Your task to perform on an android device: delete location history Image 0: 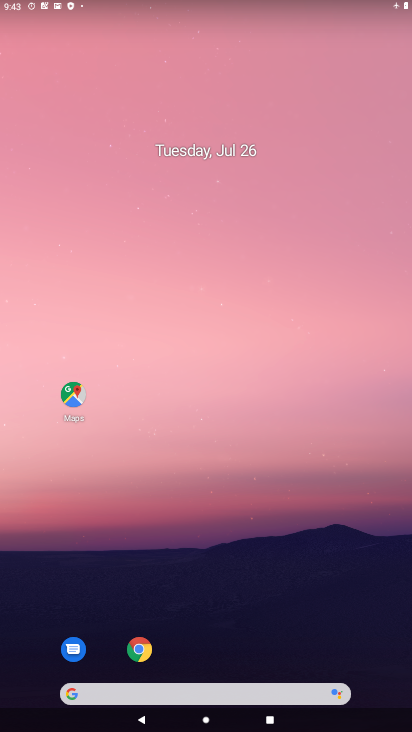
Step 0: drag from (204, 621) to (228, 46)
Your task to perform on an android device: delete location history Image 1: 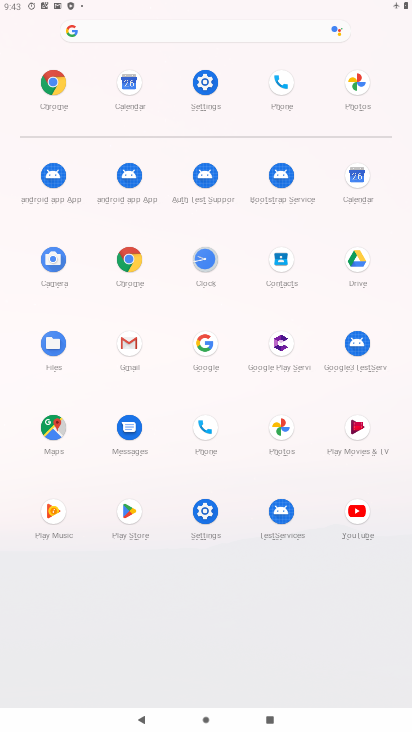
Step 1: click (201, 507)
Your task to perform on an android device: delete location history Image 2: 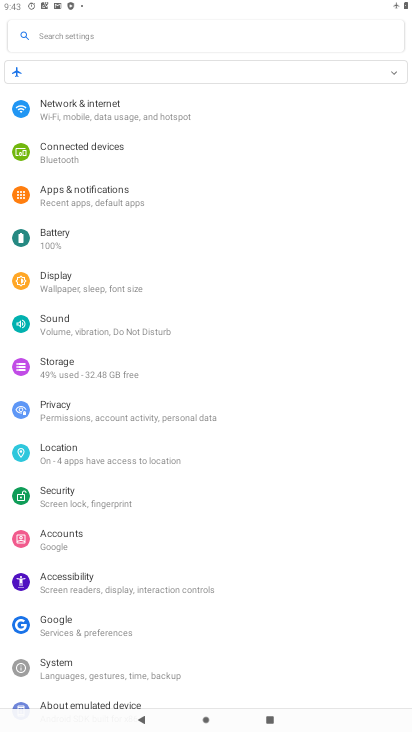
Step 2: click (72, 441)
Your task to perform on an android device: delete location history Image 3: 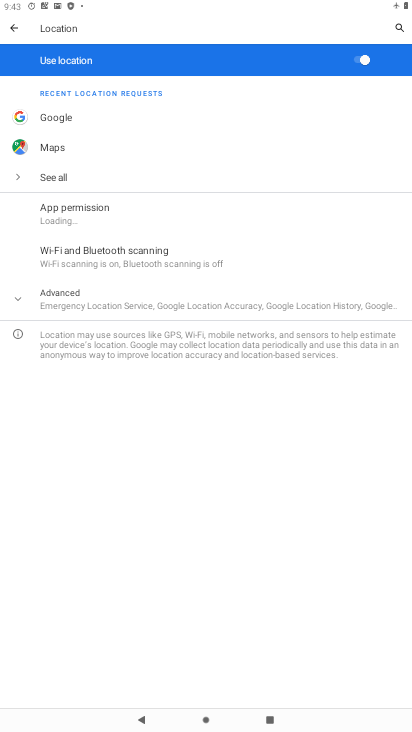
Step 3: click (121, 292)
Your task to perform on an android device: delete location history Image 4: 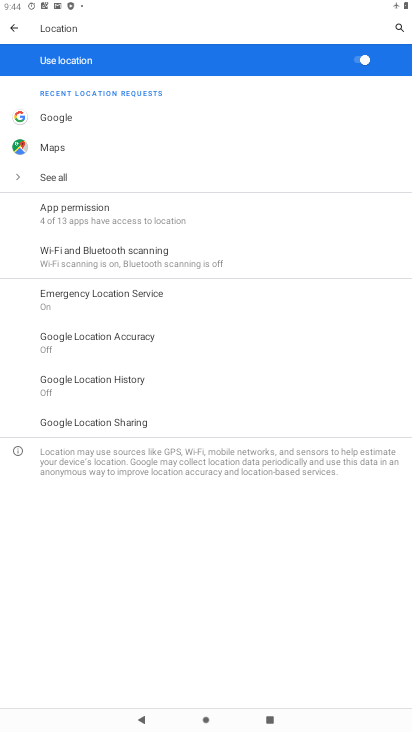
Step 4: click (105, 382)
Your task to perform on an android device: delete location history Image 5: 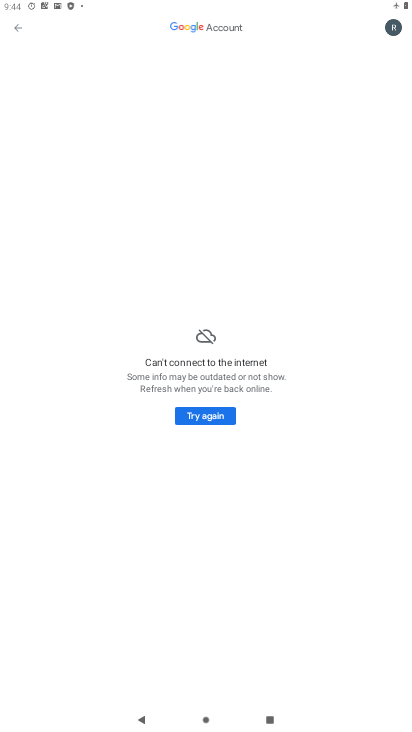
Step 5: drag from (258, 661) to (249, 238)
Your task to perform on an android device: delete location history Image 6: 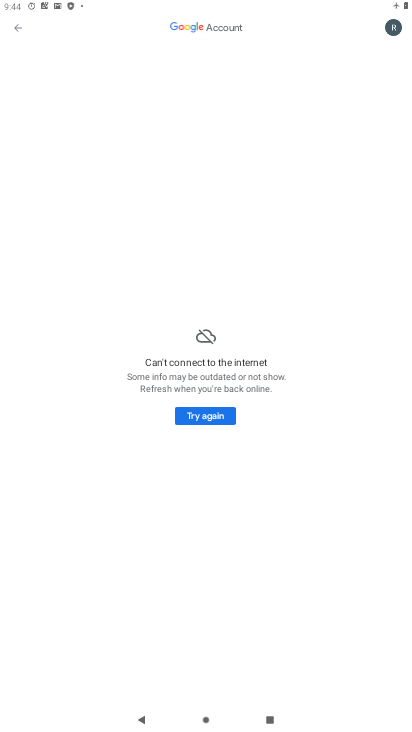
Step 6: press home button
Your task to perform on an android device: delete location history Image 7: 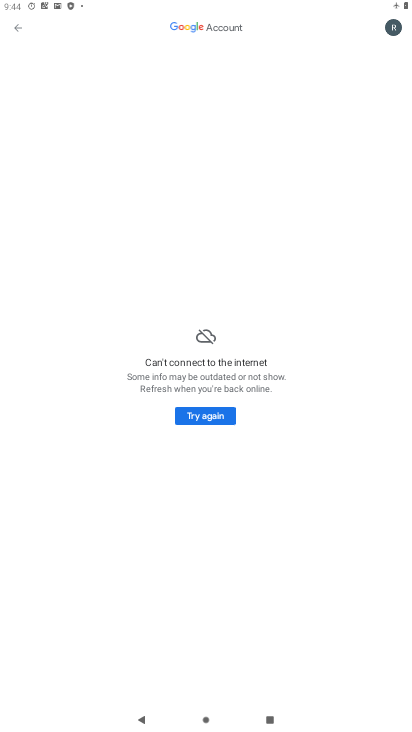
Step 7: press home button
Your task to perform on an android device: delete location history Image 8: 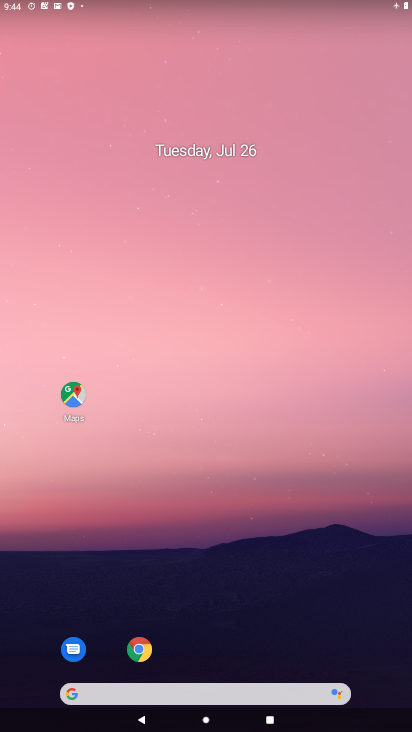
Step 8: drag from (193, 652) to (113, 7)
Your task to perform on an android device: delete location history Image 9: 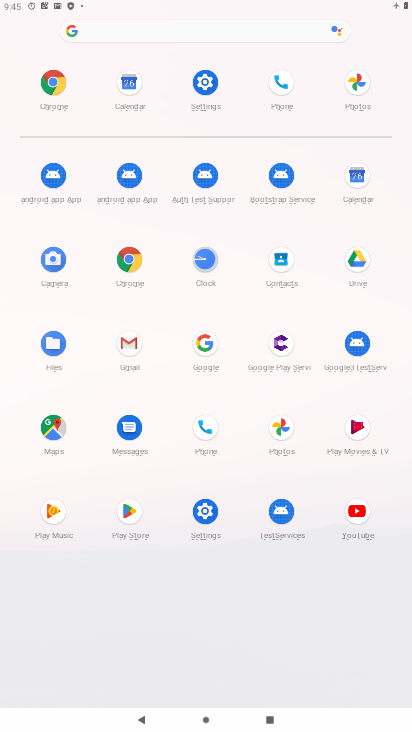
Step 9: click (209, 506)
Your task to perform on an android device: delete location history Image 10: 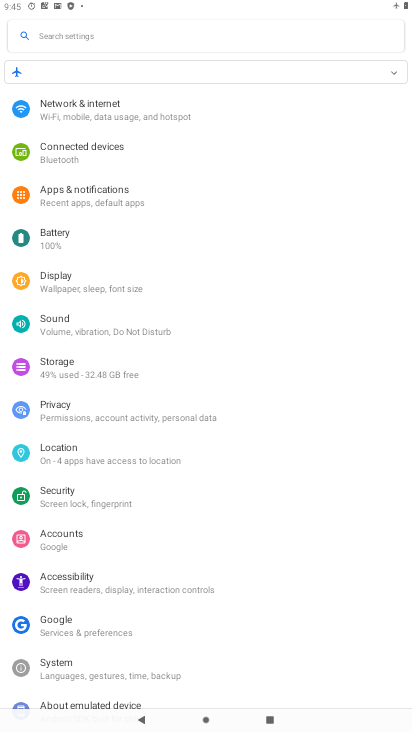
Step 10: drag from (211, 652) to (268, 321)
Your task to perform on an android device: delete location history Image 11: 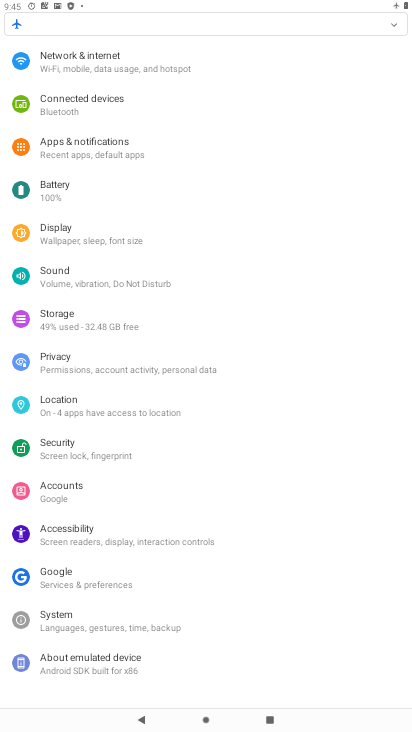
Step 11: click (71, 397)
Your task to perform on an android device: delete location history Image 12: 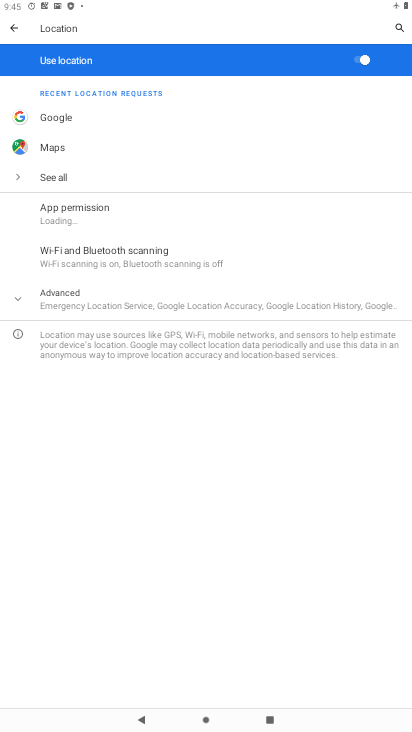
Step 12: click (70, 298)
Your task to perform on an android device: delete location history Image 13: 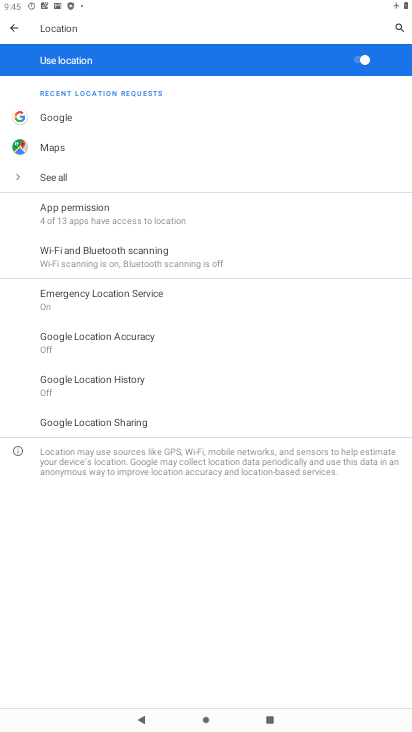
Step 13: click (125, 379)
Your task to perform on an android device: delete location history Image 14: 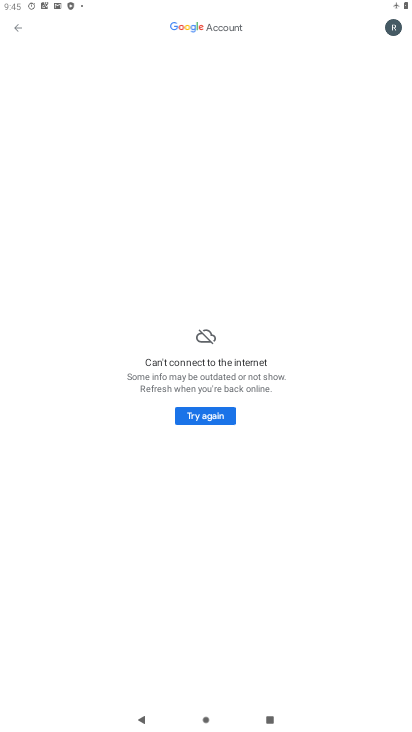
Step 14: task complete